Your task to perform on an android device: toggle data saver in the chrome app Image 0: 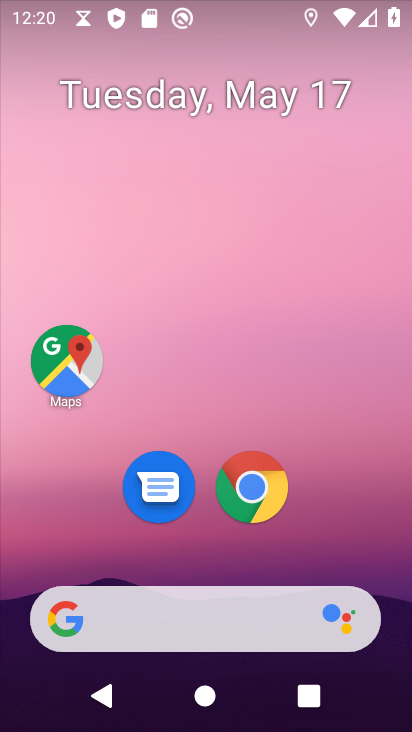
Step 0: drag from (338, 531) to (273, 58)
Your task to perform on an android device: toggle data saver in the chrome app Image 1: 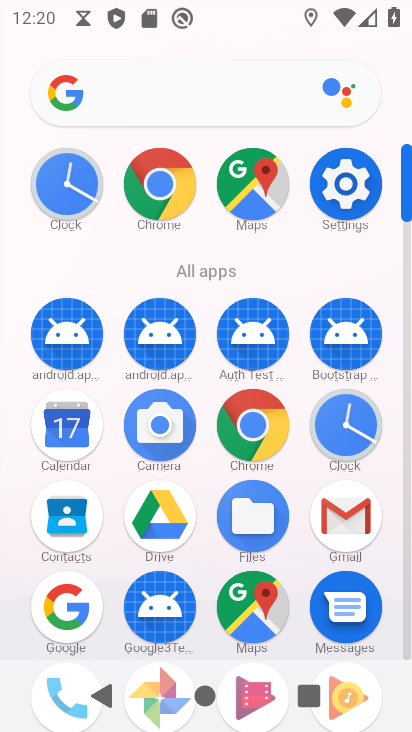
Step 1: drag from (5, 532) to (3, 255)
Your task to perform on an android device: toggle data saver in the chrome app Image 2: 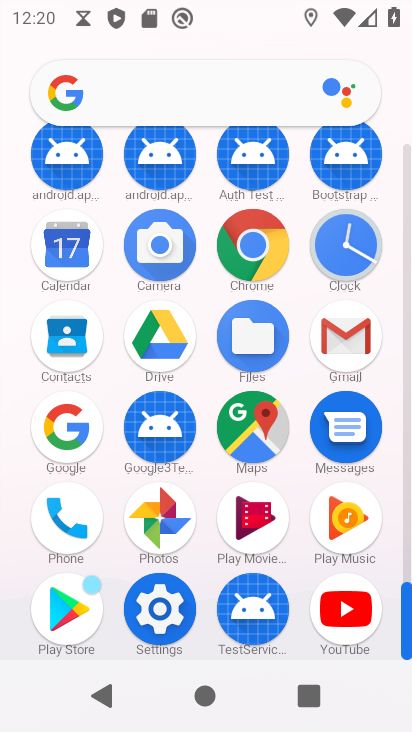
Step 2: click (251, 244)
Your task to perform on an android device: toggle data saver in the chrome app Image 3: 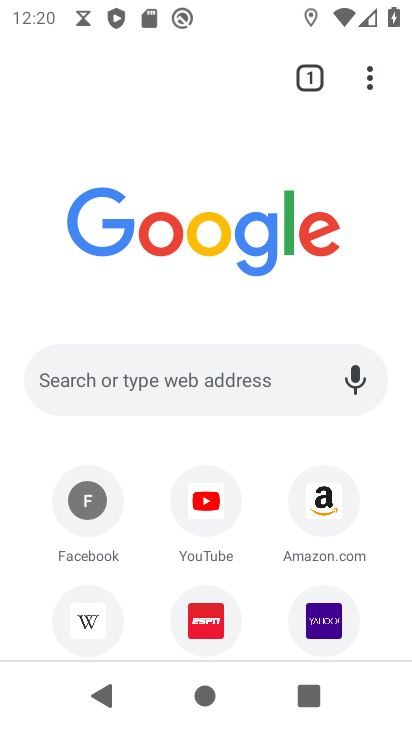
Step 3: drag from (368, 67) to (113, 551)
Your task to perform on an android device: toggle data saver in the chrome app Image 4: 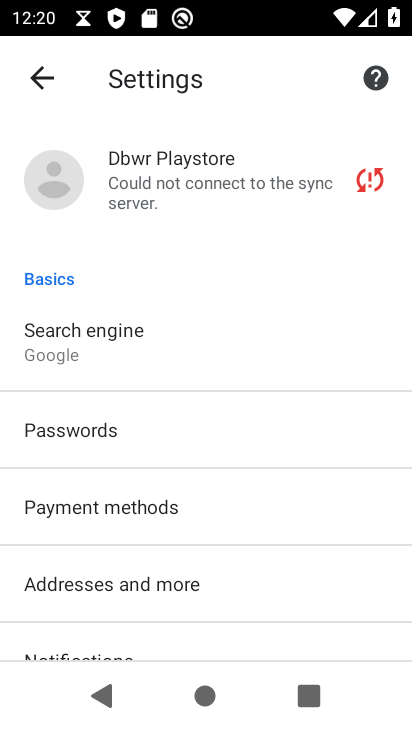
Step 4: drag from (198, 545) to (203, 302)
Your task to perform on an android device: toggle data saver in the chrome app Image 5: 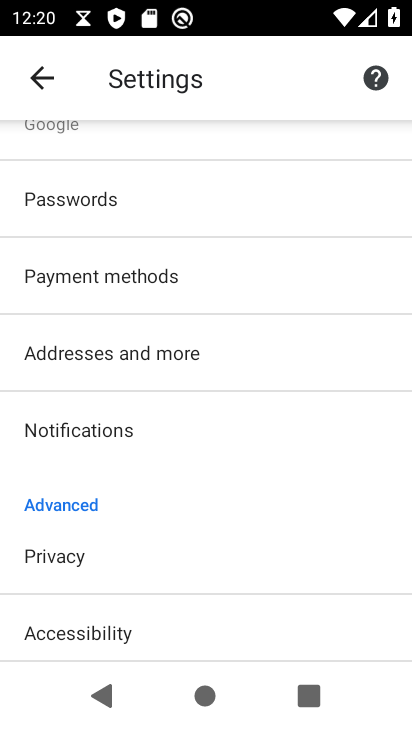
Step 5: drag from (187, 584) to (175, 235)
Your task to perform on an android device: toggle data saver in the chrome app Image 6: 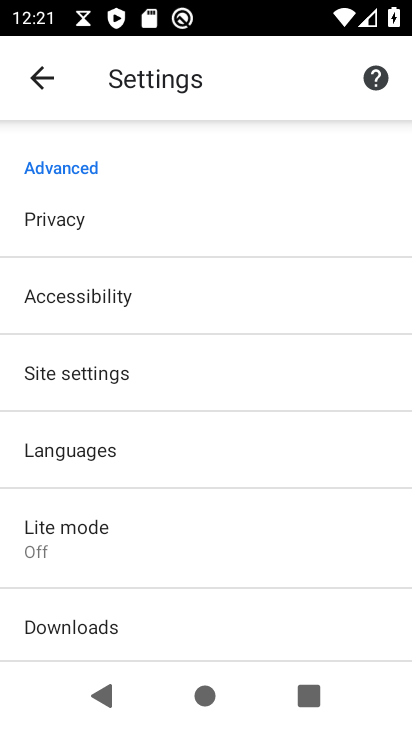
Step 6: drag from (164, 566) to (187, 260)
Your task to perform on an android device: toggle data saver in the chrome app Image 7: 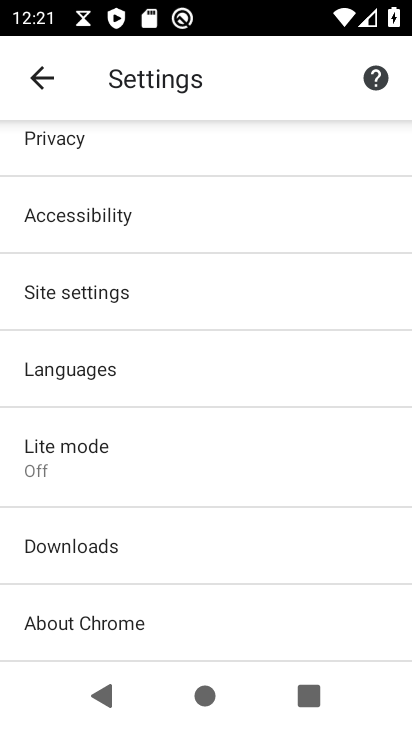
Step 7: click (131, 449)
Your task to perform on an android device: toggle data saver in the chrome app Image 8: 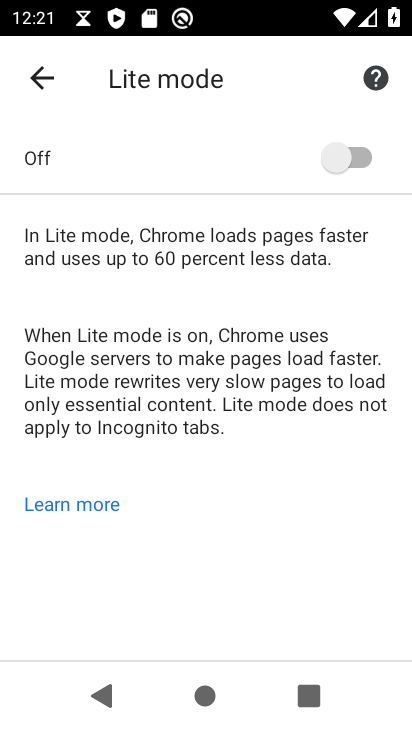
Step 8: click (346, 150)
Your task to perform on an android device: toggle data saver in the chrome app Image 9: 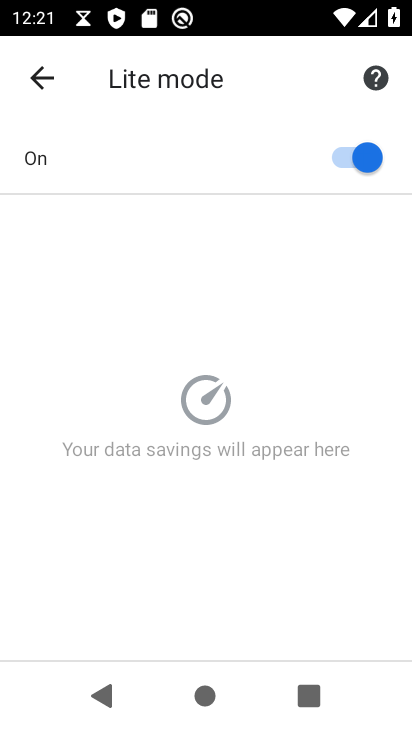
Step 9: task complete